Your task to perform on an android device: Open display settings Image 0: 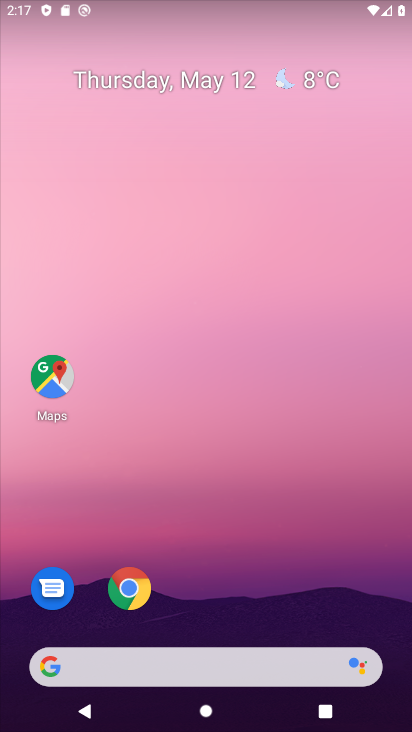
Step 0: drag from (228, 558) to (237, 10)
Your task to perform on an android device: Open display settings Image 1: 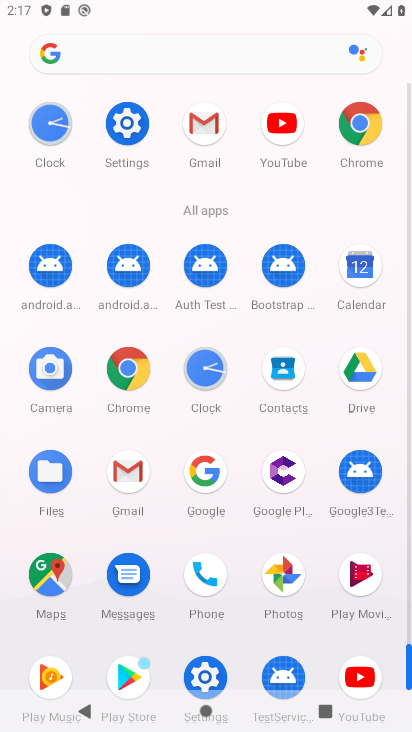
Step 1: drag from (4, 515) to (17, 221)
Your task to perform on an android device: Open display settings Image 2: 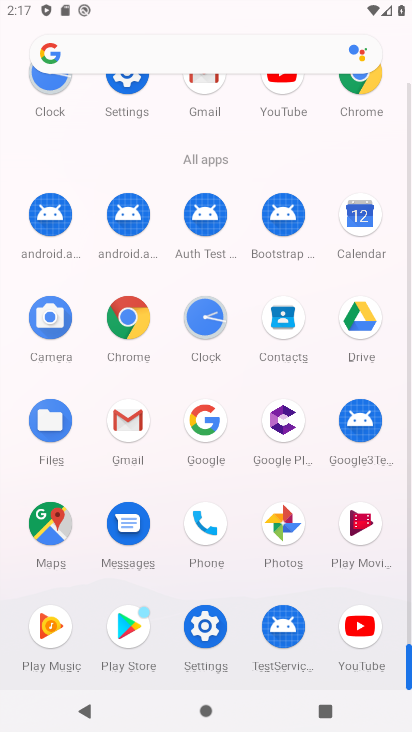
Step 2: drag from (7, 536) to (1, 235)
Your task to perform on an android device: Open display settings Image 3: 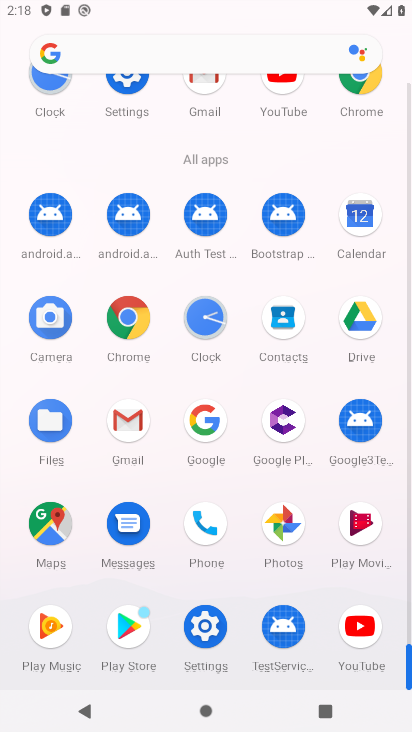
Step 3: drag from (19, 531) to (21, 237)
Your task to perform on an android device: Open display settings Image 4: 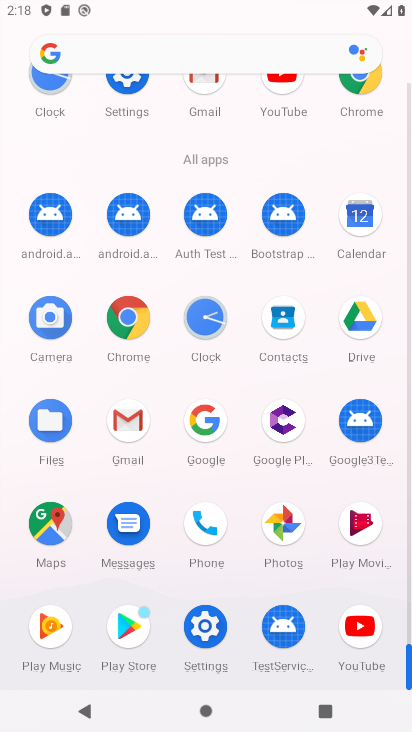
Step 4: click (202, 623)
Your task to perform on an android device: Open display settings Image 5: 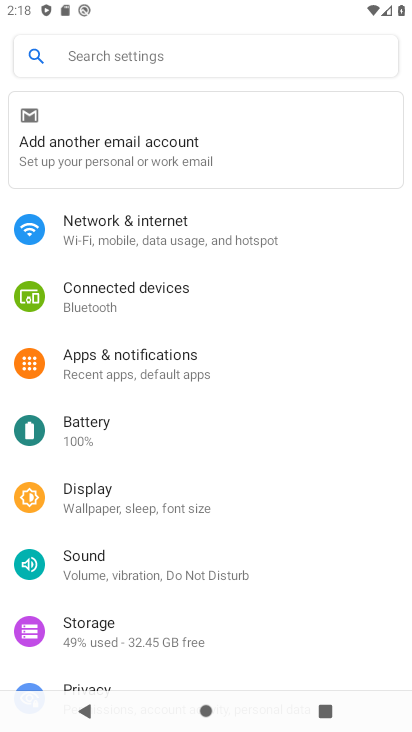
Step 5: click (122, 492)
Your task to perform on an android device: Open display settings Image 6: 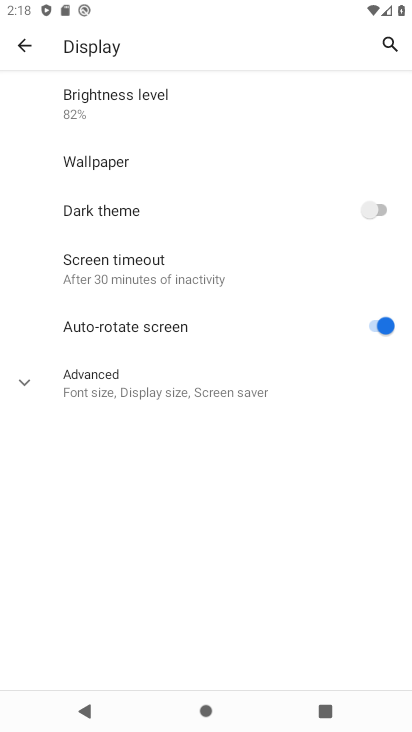
Step 6: click (21, 370)
Your task to perform on an android device: Open display settings Image 7: 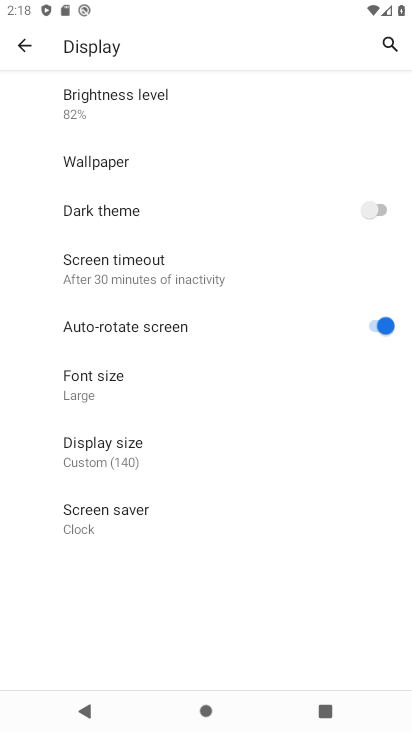
Step 7: task complete